Your task to perform on an android device: Go to calendar. Show me events next week Image 0: 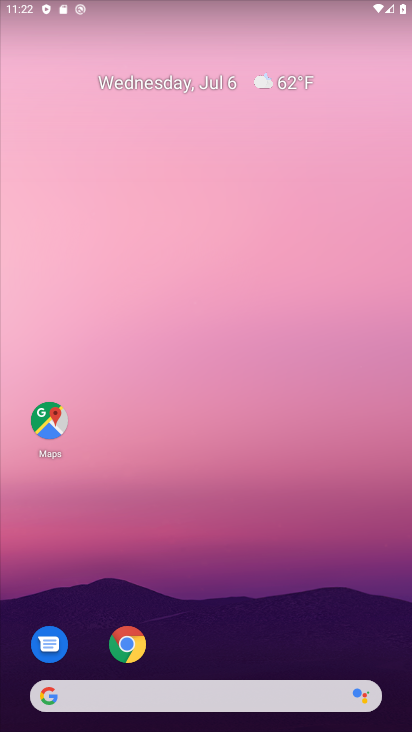
Step 0: drag from (251, 637) to (234, 75)
Your task to perform on an android device: Go to calendar. Show me events next week Image 1: 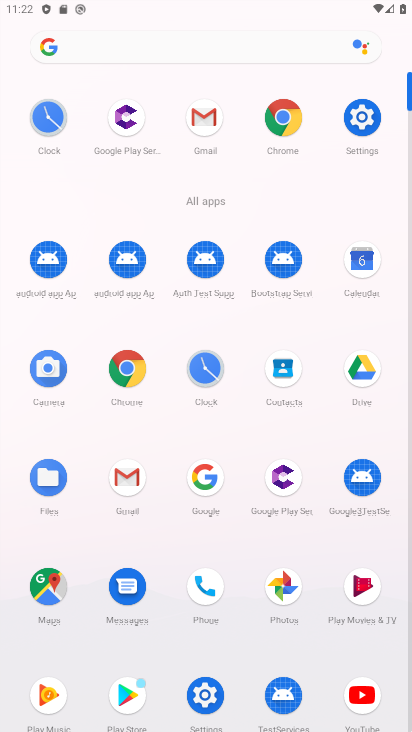
Step 1: click (283, 384)
Your task to perform on an android device: Go to calendar. Show me events next week Image 2: 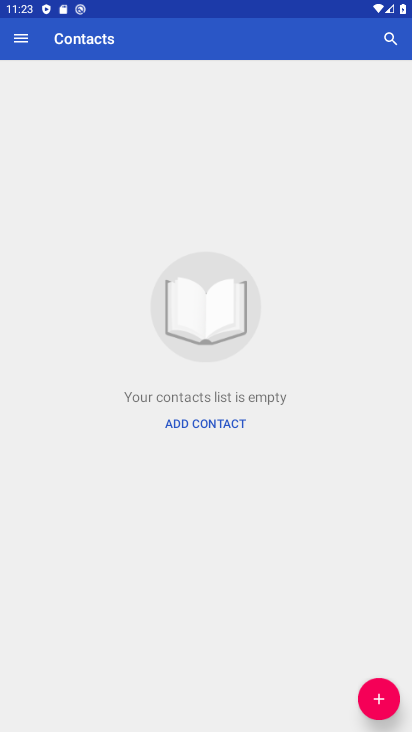
Step 2: click (23, 52)
Your task to perform on an android device: Go to calendar. Show me events next week Image 3: 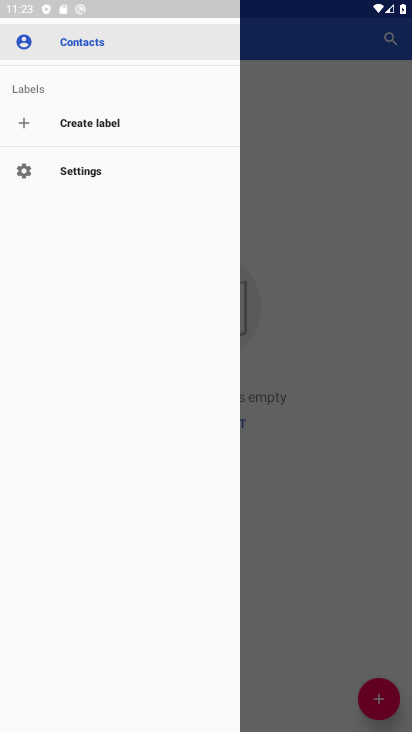
Step 3: click (249, 233)
Your task to perform on an android device: Go to calendar. Show me events next week Image 4: 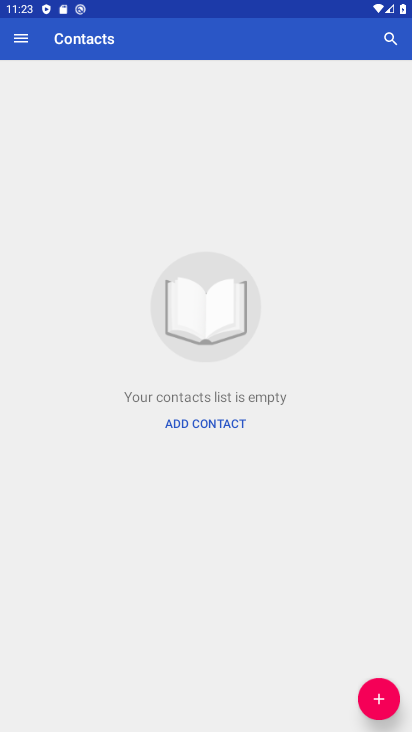
Step 4: press home button
Your task to perform on an android device: Go to calendar. Show me events next week Image 5: 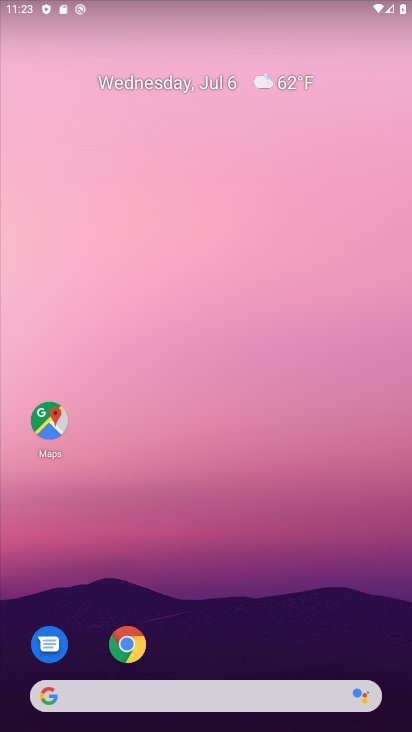
Step 5: drag from (272, 642) to (214, 63)
Your task to perform on an android device: Go to calendar. Show me events next week Image 6: 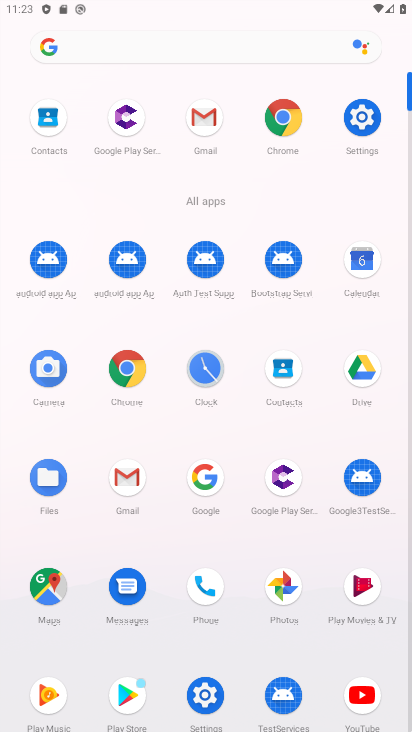
Step 6: click (366, 279)
Your task to perform on an android device: Go to calendar. Show me events next week Image 7: 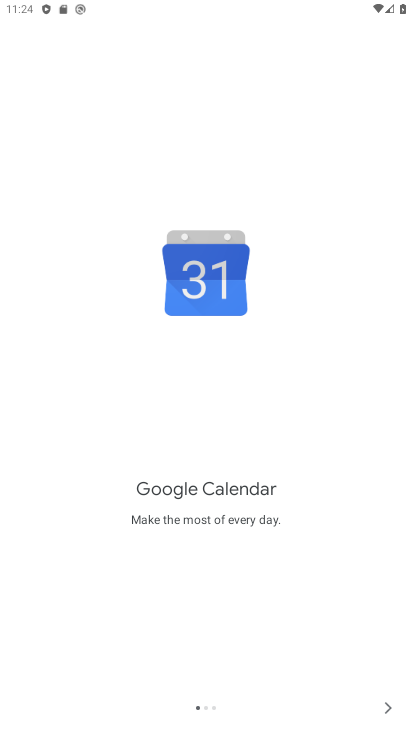
Step 7: click (388, 712)
Your task to perform on an android device: Go to calendar. Show me events next week Image 8: 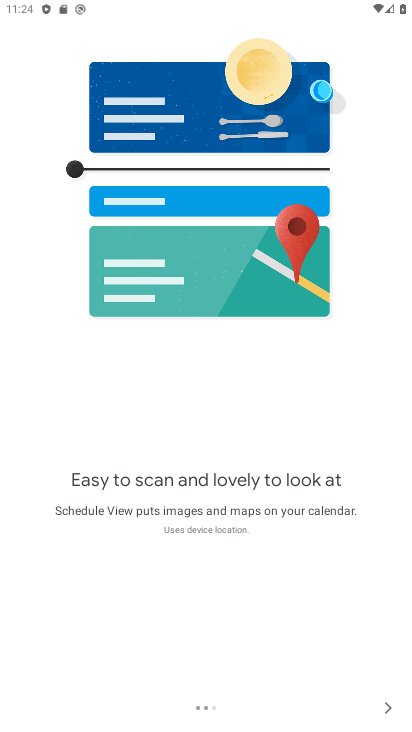
Step 8: click (388, 712)
Your task to perform on an android device: Go to calendar. Show me events next week Image 9: 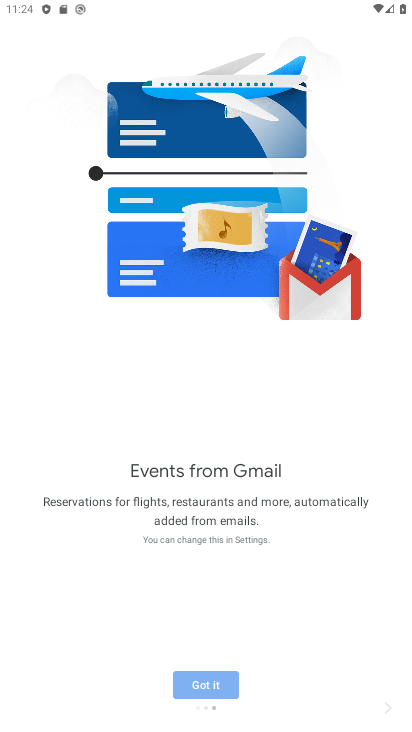
Step 9: click (388, 712)
Your task to perform on an android device: Go to calendar. Show me events next week Image 10: 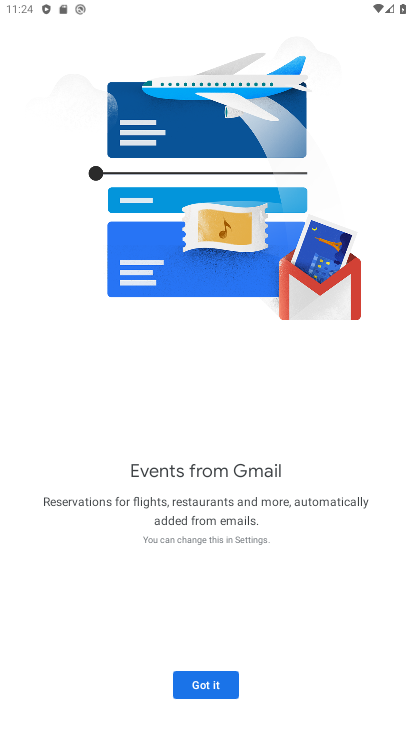
Step 10: click (224, 682)
Your task to perform on an android device: Go to calendar. Show me events next week Image 11: 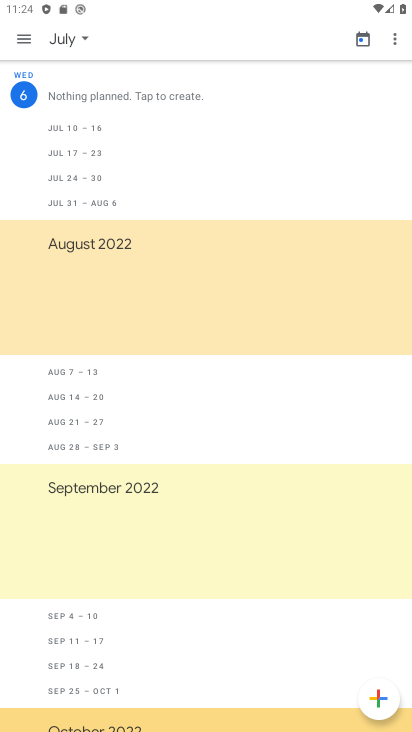
Step 11: click (106, 131)
Your task to perform on an android device: Go to calendar. Show me events next week Image 12: 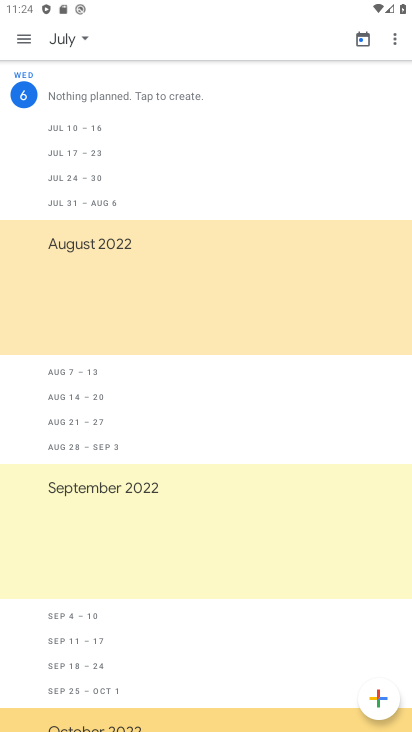
Step 12: click (105, 129)
Your task to perform on an android device: Go to calendar. Show me events next week Image 13: 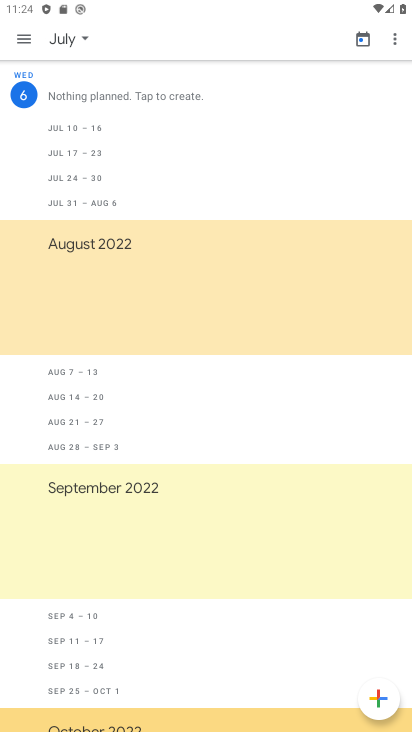
Step 13: click (18, 37)
Your task to perform on an android device: Go to calendar. Show me events next week Image 14: 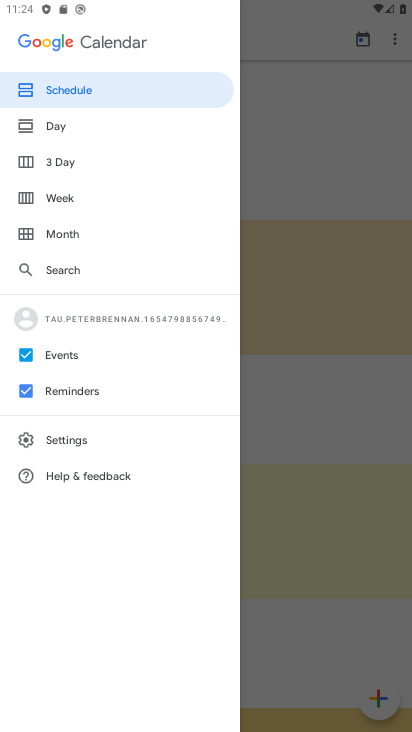
Step 14: click (83, 207)
Your task to perform on an android device: Go to calendar. Show me events next week Image 15: 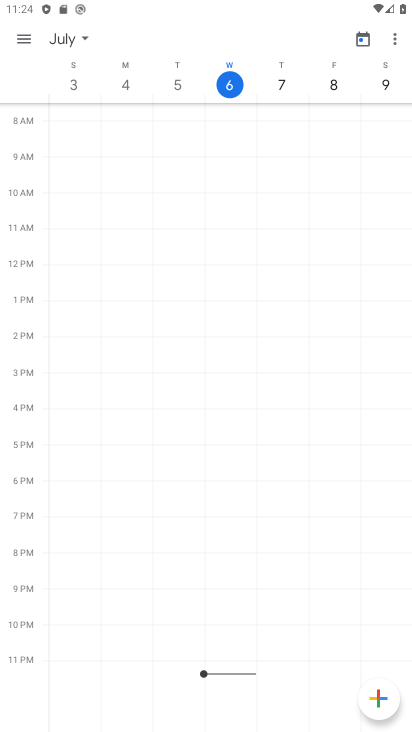
Step 15: task complete